Your task to perform on an android device: Add "rayovac triple a" to the cart on costco.com Image 0: 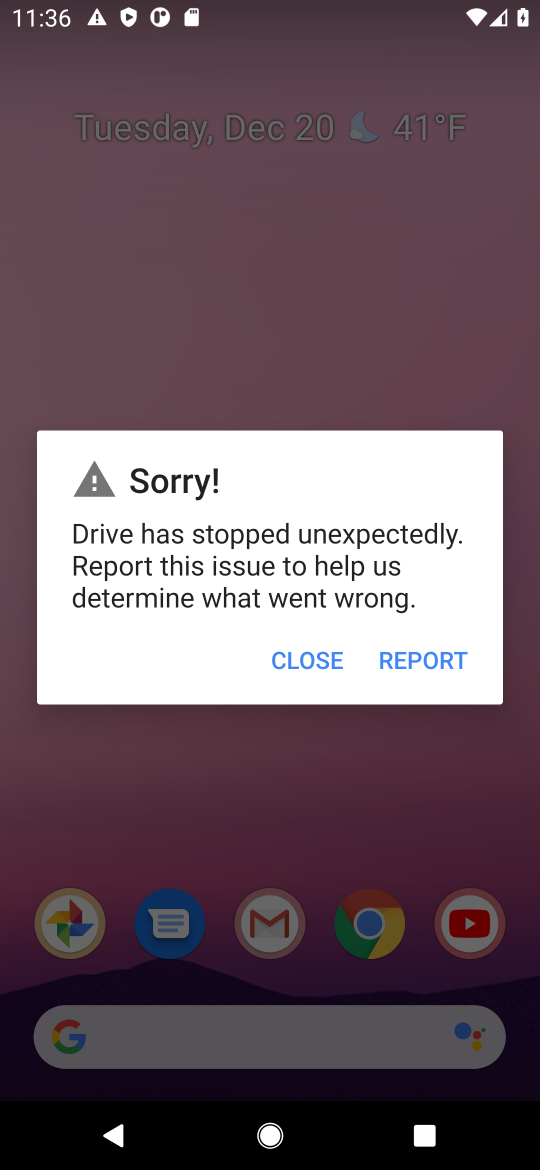
Step 0: click (293, 677)
Your task to perform on an android device: Add "rayovac triple a" to the cart on costco.com Image 1: 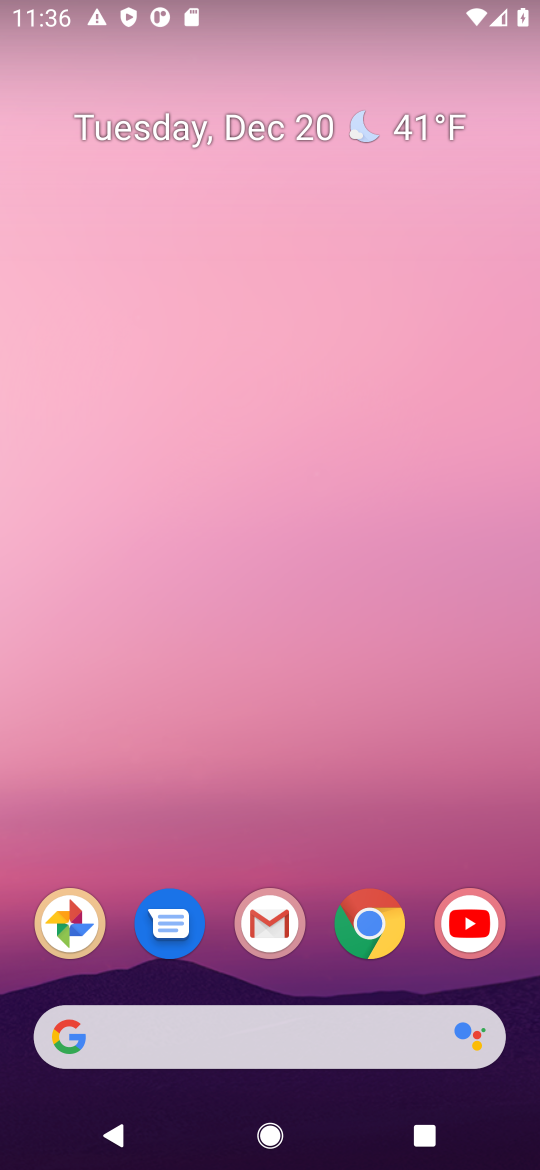
Step 1: click (383, 910)
Your task to perform on an android device: Add "rayovac triple a" to the cart on costco.com Image 2: 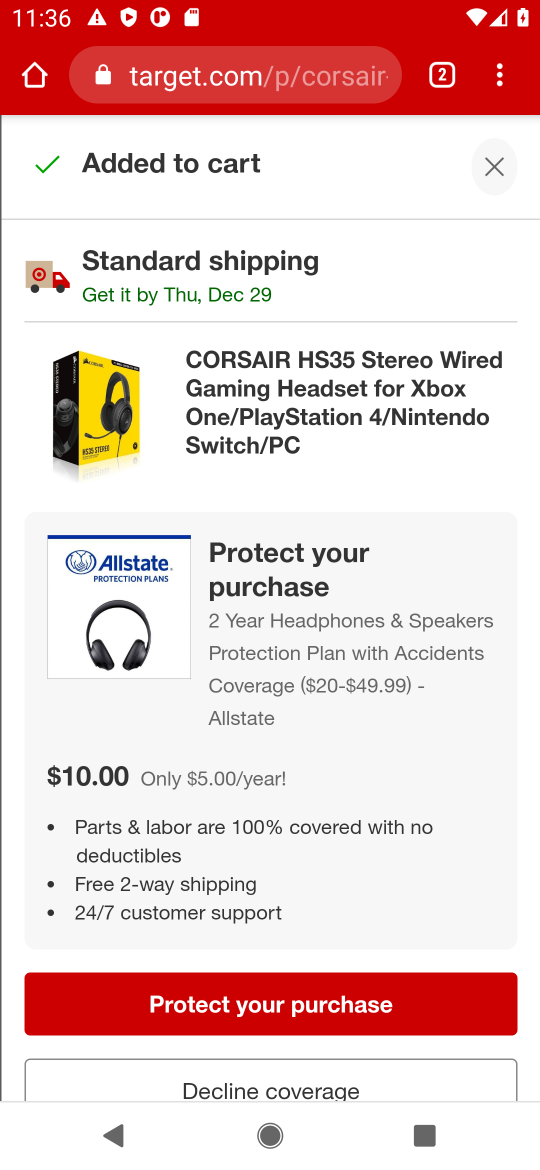
Step 2: click (488, 176)
Your task to perform on an android device: Add "rayovac triple a" to the cart on costco.com Image 3: 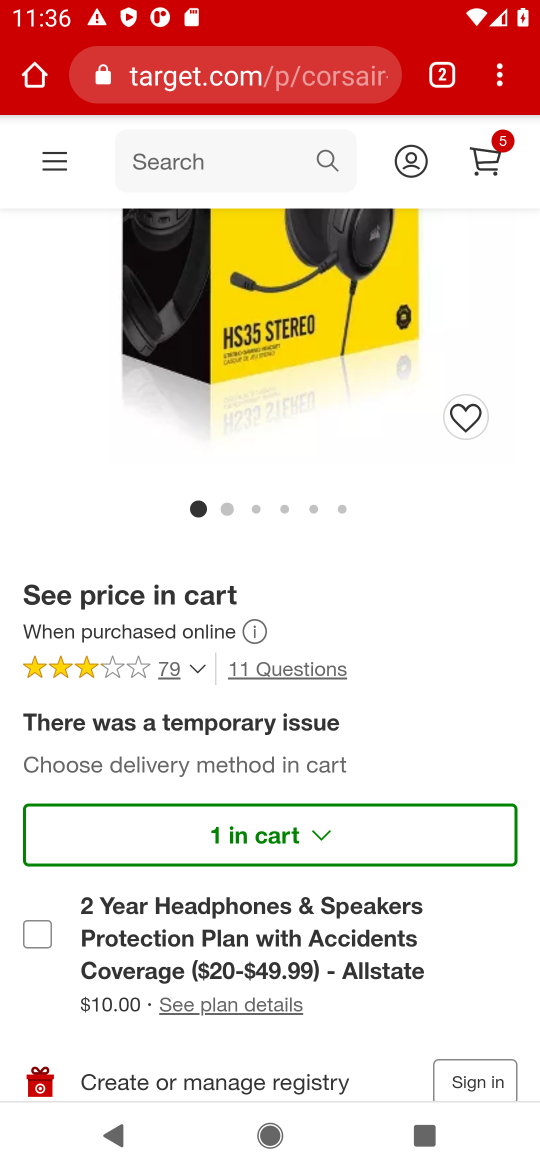
Step 3: click (219, 57)
Your task to perform on an android device: Add "rayovac triple a" to the cart on costco.com Image 4: 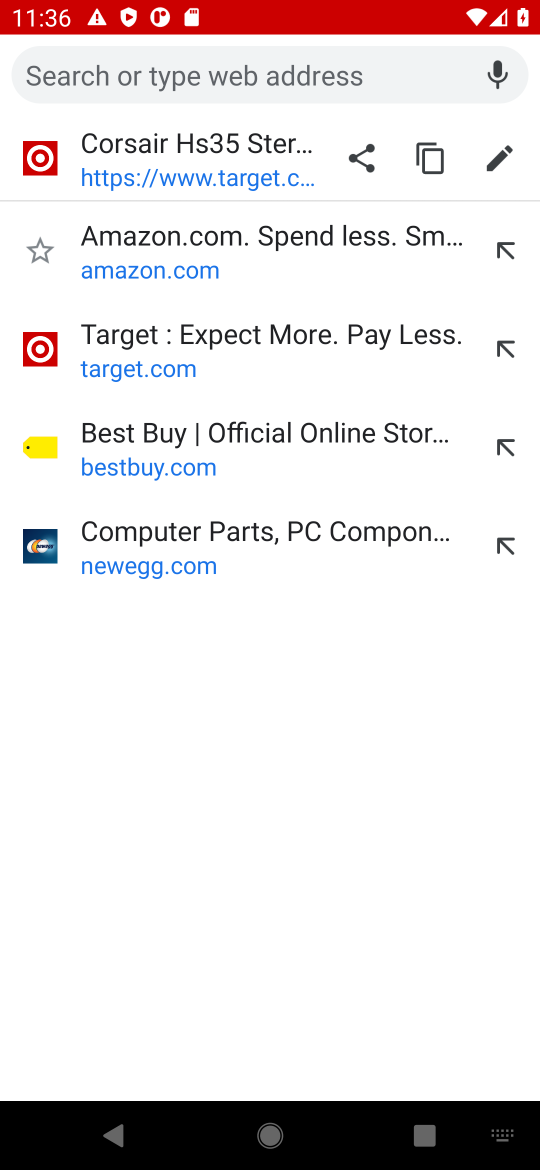
Step 4: type "costco"
Your task to perform on an android device: Add "rayovac triple a" to the cart on costco.com Image 5: 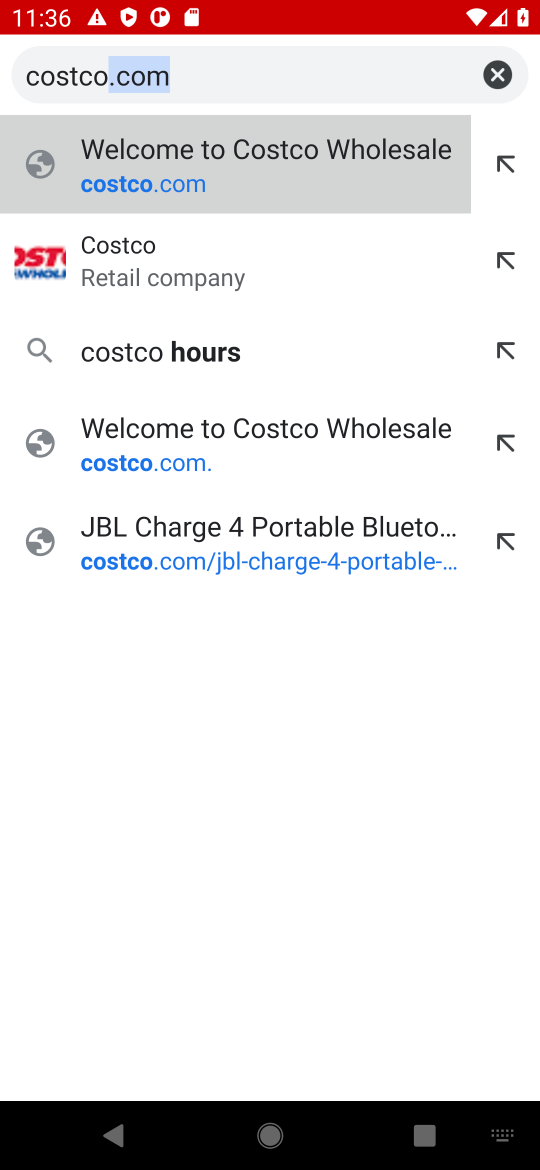
Step 5: click (177, 180)
Your task to perform on an android device: Add "rayovac triple a" to the cart on costco.com Image 6: 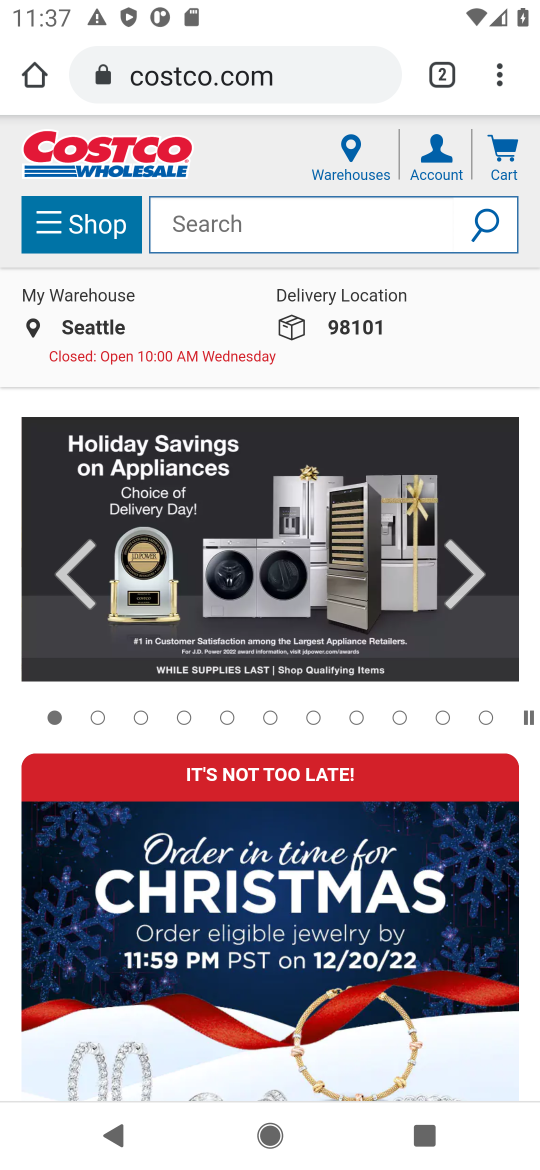
Step 6: click (194, 225)
Your task to perform on an android device: Add "rayovac triple a" to the cart on costco.com Image 7: 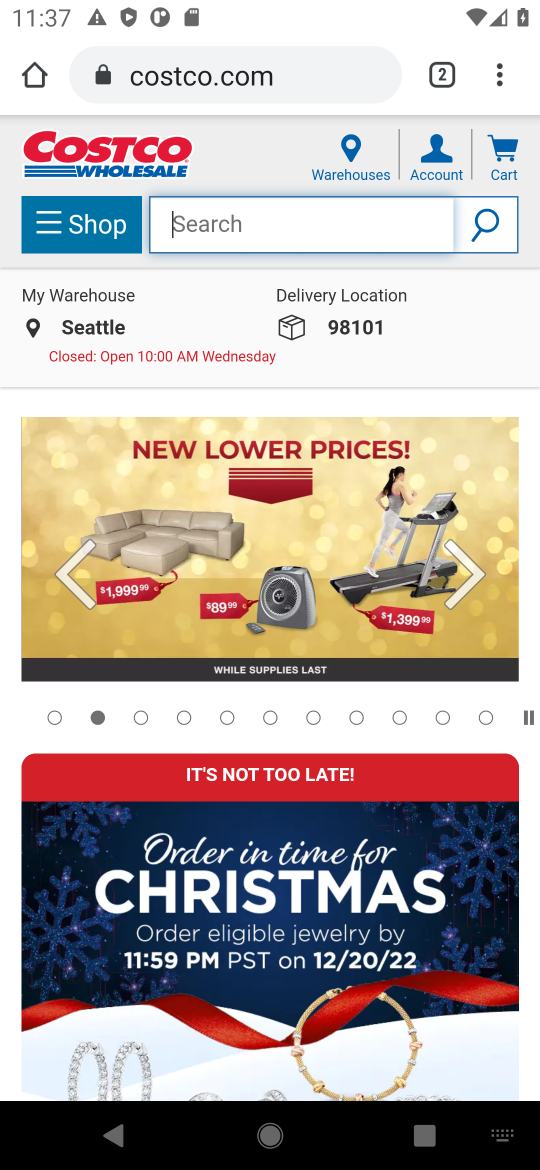
Step 7: type "rayovac triple a"
Your task to perform on an android device: Add "rayovac triple a" to the cart on costco.com Image 8: 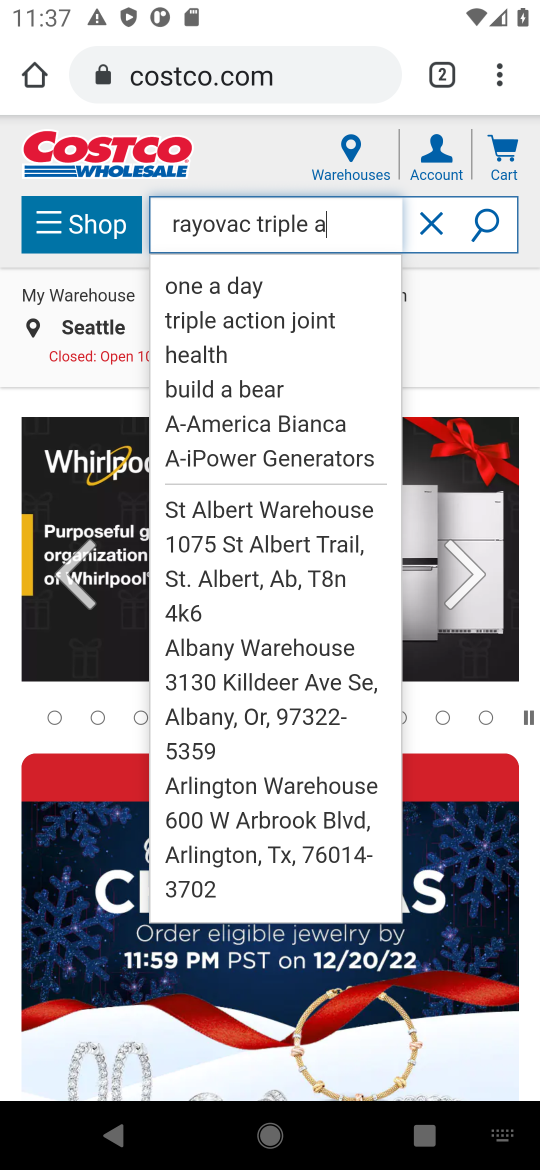
Step 8: click (486, 228)
Your task to perform on an android device: Add "rayovac triple a" to the cart on costco.com Image 9: 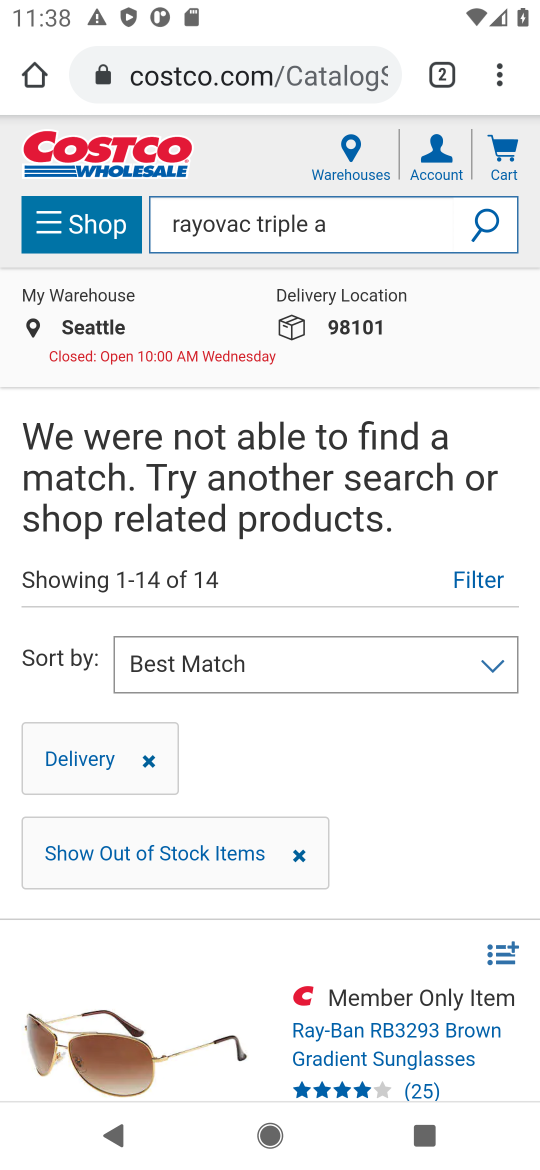
Step 9: task complete